Your task to perform on an android device: Go to Maps Image 0: 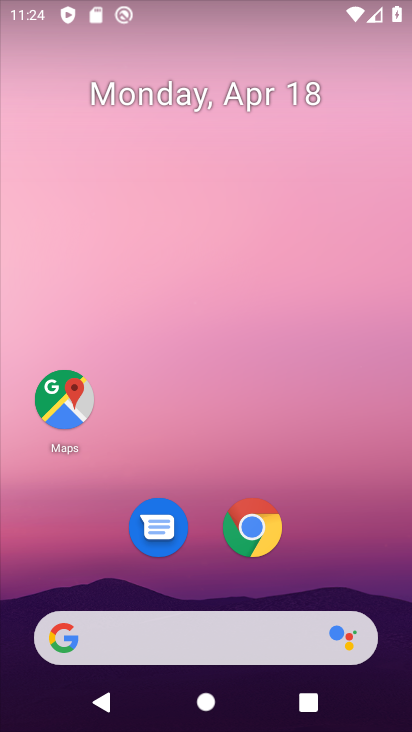
Step 0: drag from (305, 565) to (338, 7)
Your task to perform on an android device: Go to Maps Image 1: 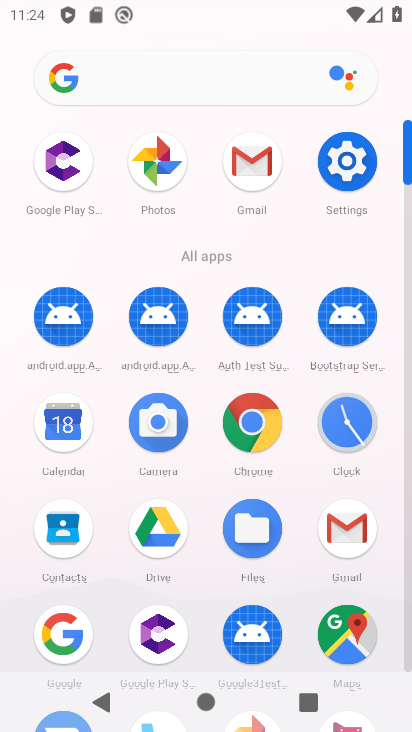
Step 1: click (347, 624)
Your task to perform on an android device: Go to Maps Image 2: 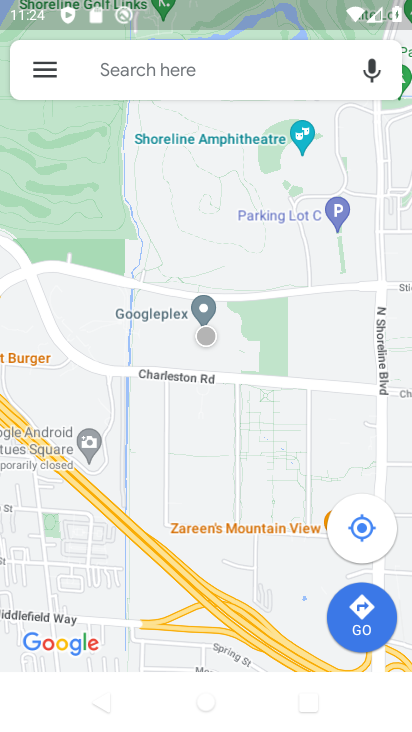
Step 2: task complete